Your task to perform on an android device: Go to location settings Image 0: 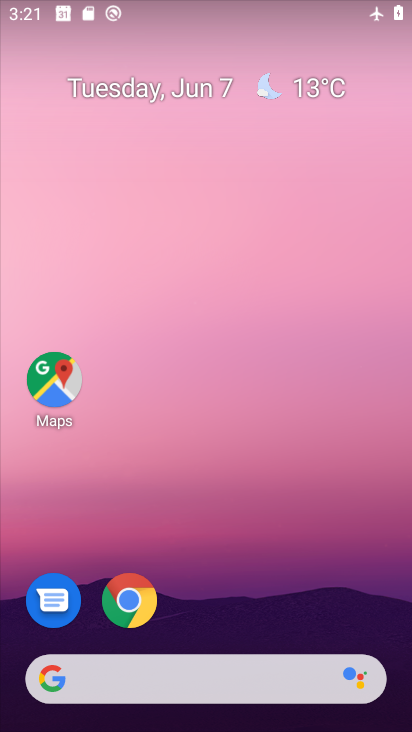
Step 0: drag from (306, 590) to (235, 104)
Your task to perform on an android device: Go to location settings Image 1: 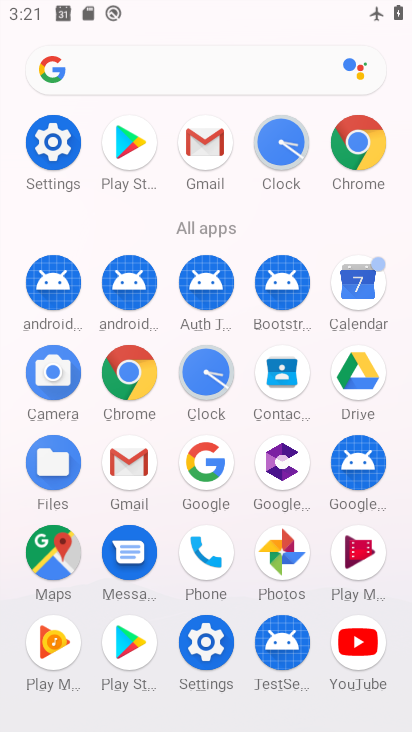
Step 1: click (53, 131)
Your task to perform on an android device: Go to location settings Image 2: 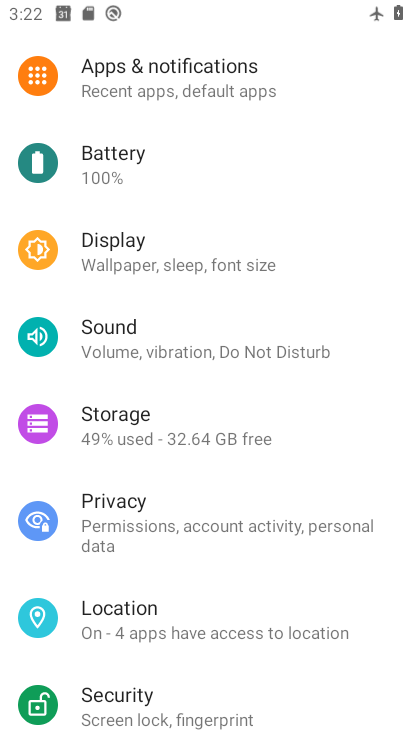
Step 2: click (226, 625)
Your task to perform on an android device: Go to location settings Image 3: 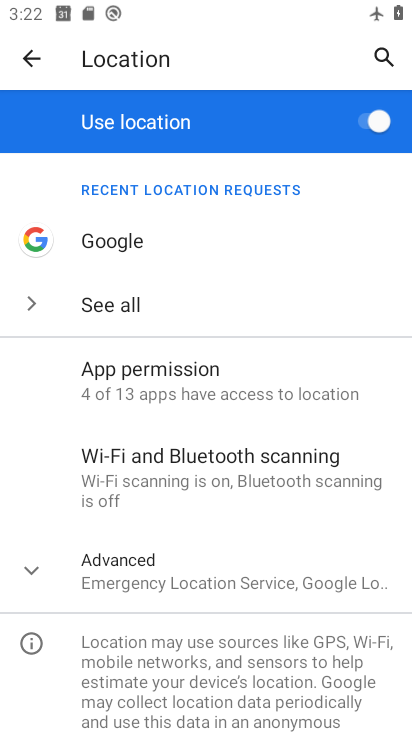
Step 3: task complete